Your task to perform on an android device: turn off javascript in the chrome app Image 0: 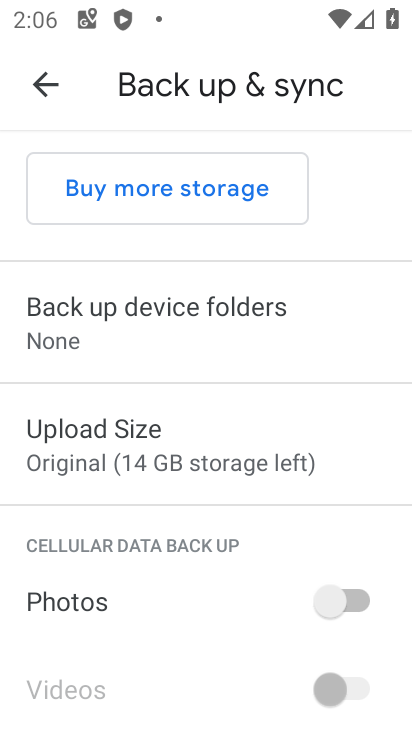
Step 0: press home button
Your task to perform on an android device: turn off javascript in the chrome app Image 1: 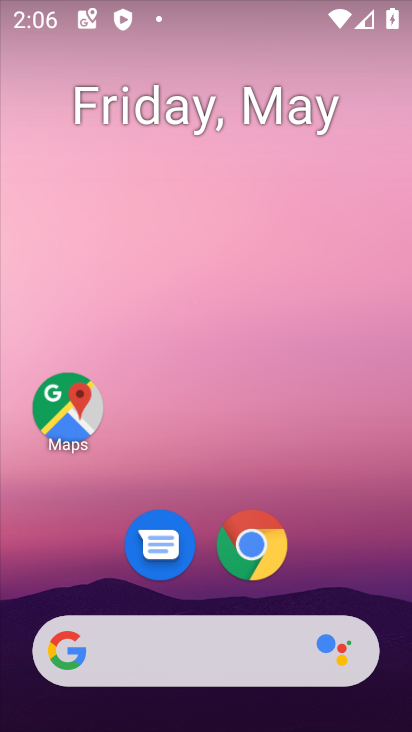
Step 1: click (251, 546)
Your task to perform on an android device: turn off javascript in the chrome app Image 2: 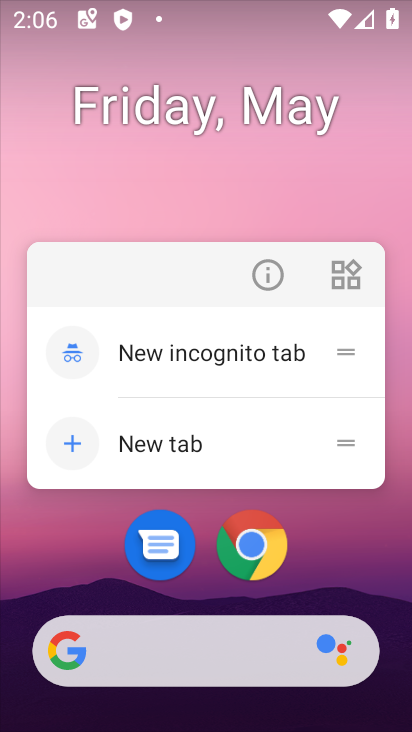
Step 2: click (253, 558)
Your task to perform on an android device: turn off javascript in the chrome app Image 3: 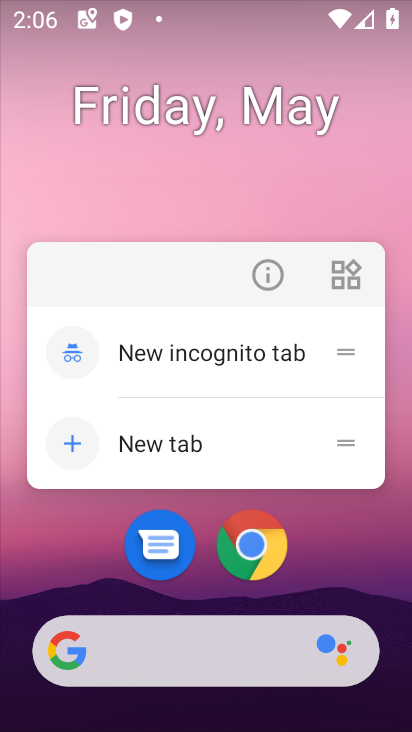
Step 3: click (256, 550)
Your task to perform on an android device: turn off javascript in the chrome app Image 4: 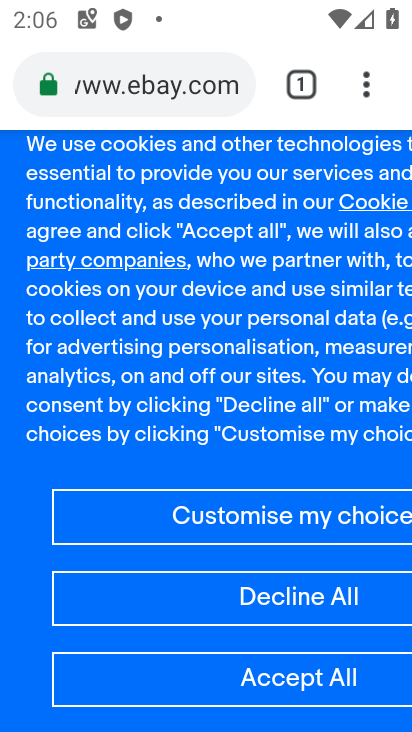
Step 4: drag from (374, 93) to (301, 609)
Your task to perform on an android device: turn off javascript in the chrome app Image 5: 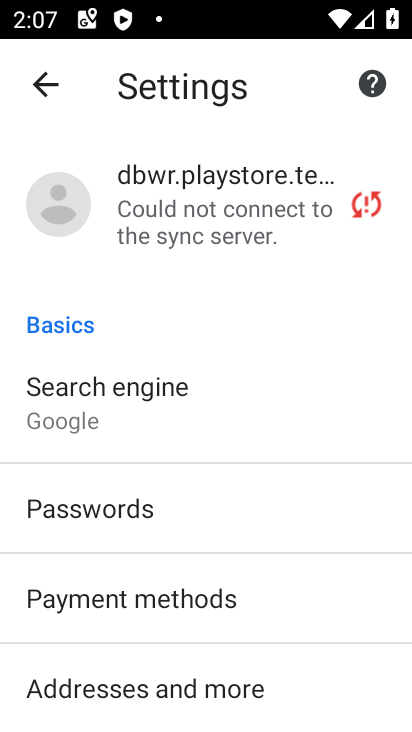
Step 5: drag from (253, 682) to (318, 263)
Your task to perform on an android device: turn off javascript in the chrome app Image 6: 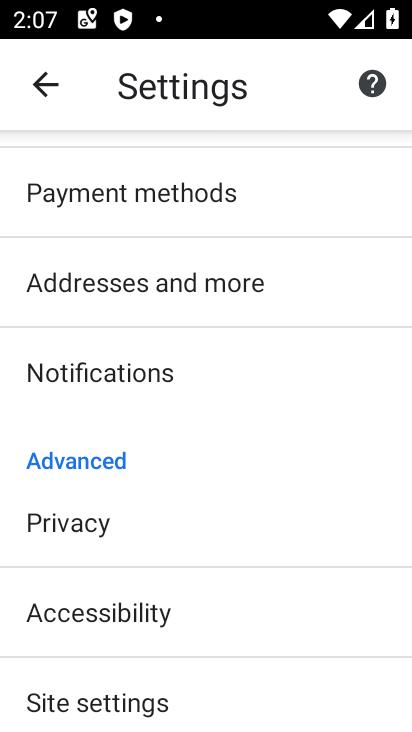
Step 6: drag from (181, 646) to (303, 315)
Your task to perform on an android device: turn off javascript in the chrome app Image 7: 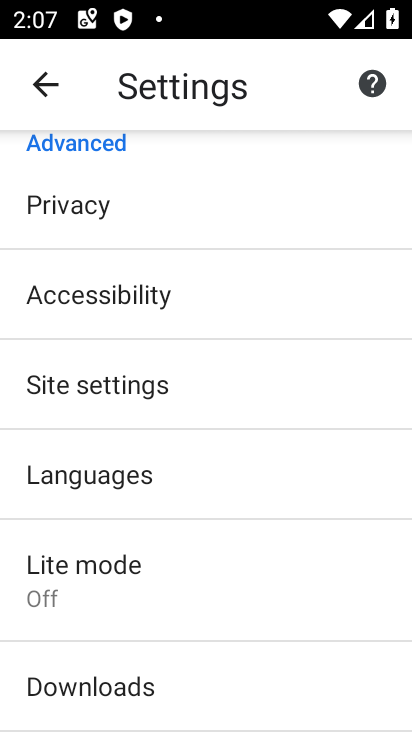
Step 7: drag from (125, 651) to (208, 355)
Your task to perform on an android device: turn off javascript in the chrome app Image 8: 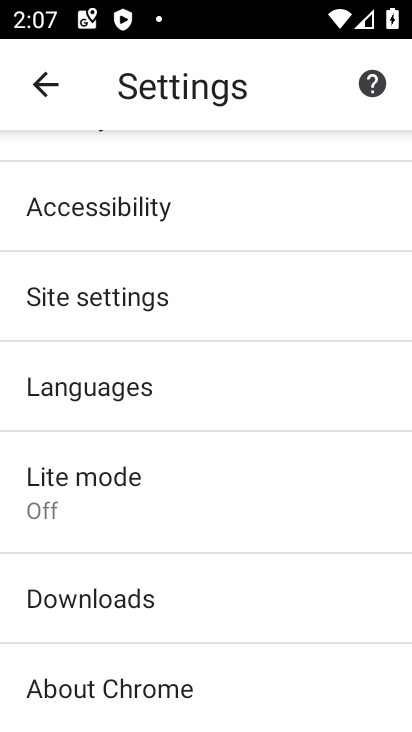
Step 8: click (193, 324)
Your task to perform on an android device: turn off javascript in the chrome app Image 9: 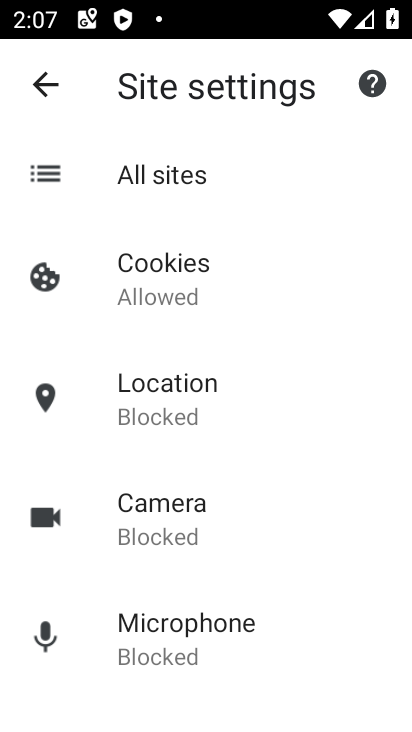
Step 9: drag from (177, 630) to (256, 278)
Your task to perform on an android device: turn off javascript in the chrome app Image 10: 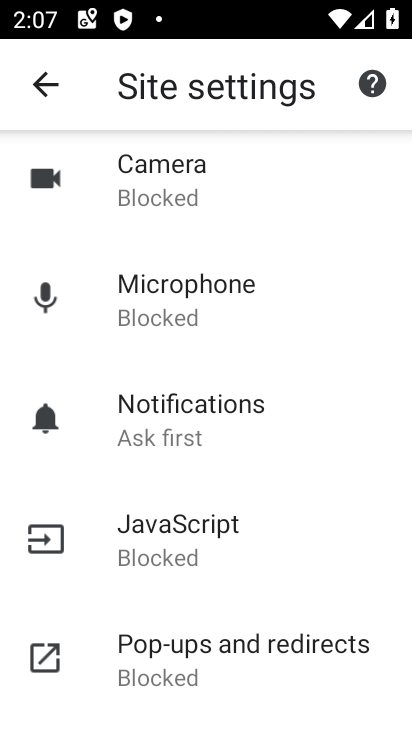
Step 10: click (222, 529)
Your task to perform on an android device: turn off javascript in the chrome app Image 11: 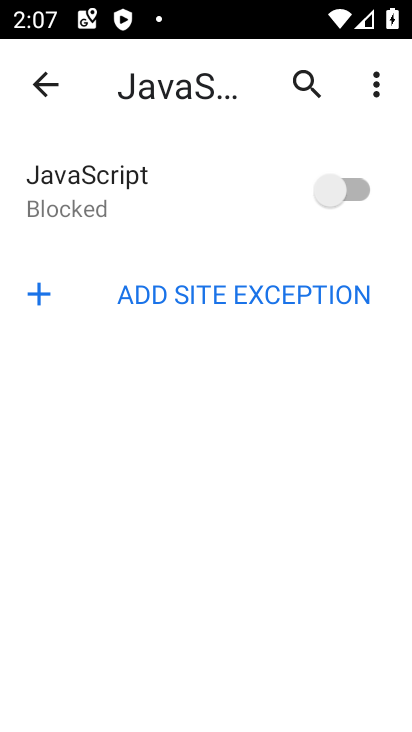
Step 11: task complete